Your task to perform on an android device: Open internet settings Image 0: 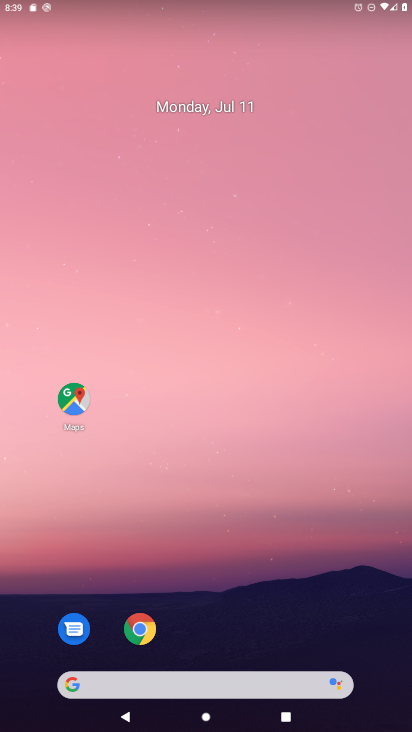
Step 0: drag from (235, 661) to (294, 67)
Your task to perform on an android device: Open internet settings Image 1: 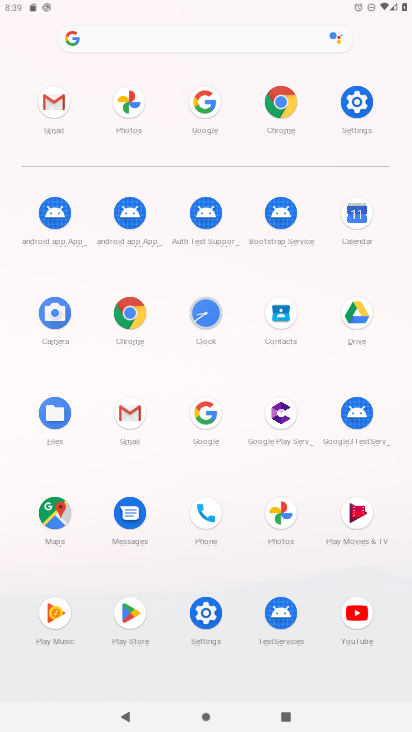
Step 1: click (357, 101)
Your task to perform on an android device: Open internet settings Image 2: 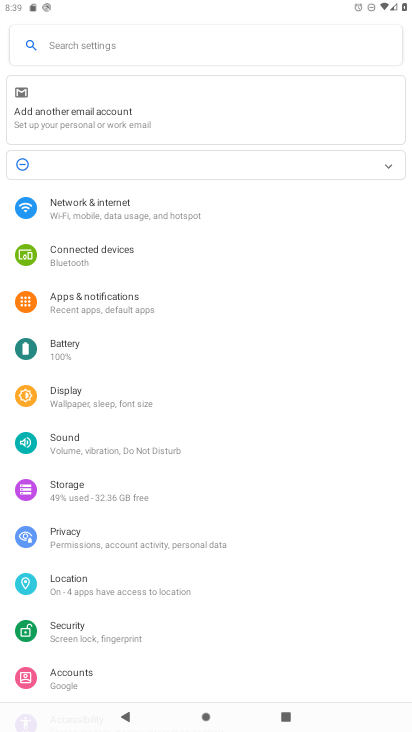
Step 2: click (138, 212)
Your task to perform on an android device: Open internet settings Image 3: 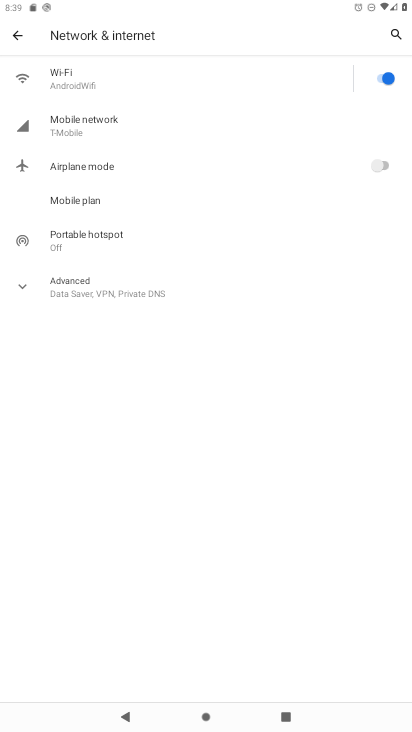
Step 3: click (105, 85)
Your task to perform on an android device: Open internet settings Image 4: 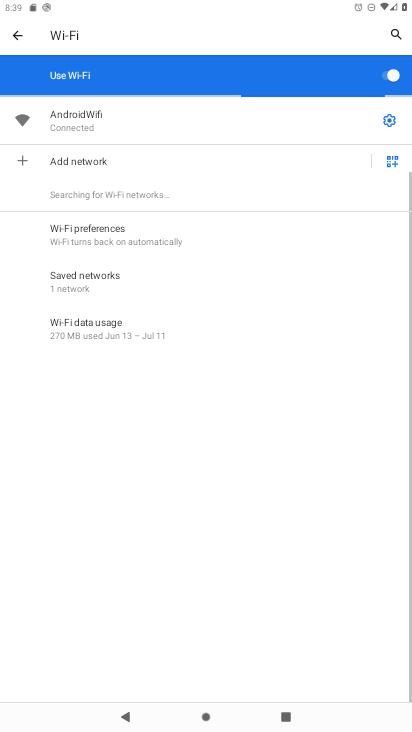
Step 4: click (390, 121)
Your task to perform on an android device: Open internet settings Image 5: 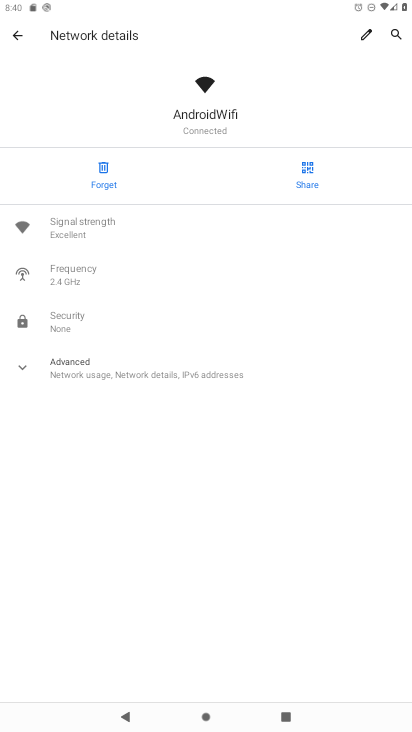
Step 5: task complete